Your task to perform on an android device: Open Youtube and go to "Your channel" Image 0: 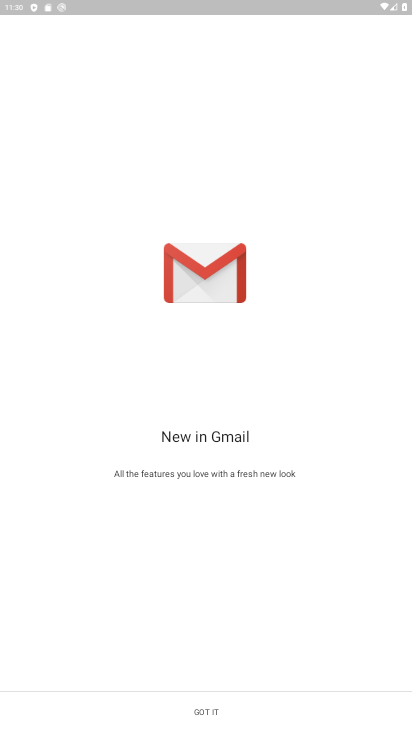
Step 0: press back button
Your task to perform on an android device: Open Youtube and go to "Your channel" Image 1: 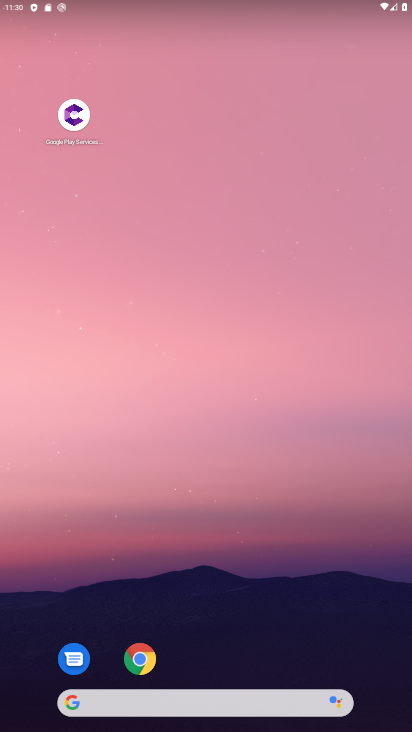
Step 1: drag from (198, 619) to (195, 169)
Your task to perform on an android device: Open Youtube and go to "Your channel" Image 2: 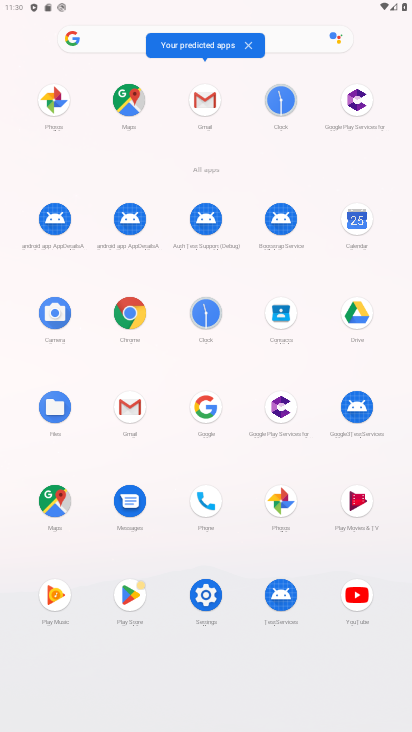
Step 2: click (363, 617)
Your task to perform on an android device: Open Youtube and go to "Your channel" Image 3: 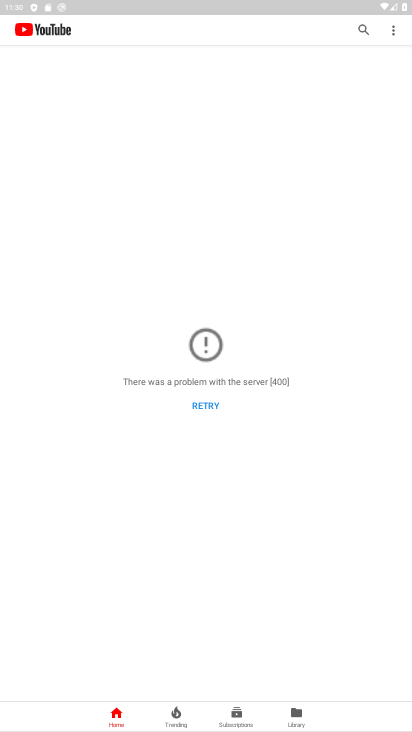
Step 3: click (294, 714)
Your task to perform on an android device: Open Youtube and go to "Your channel" Image 4: 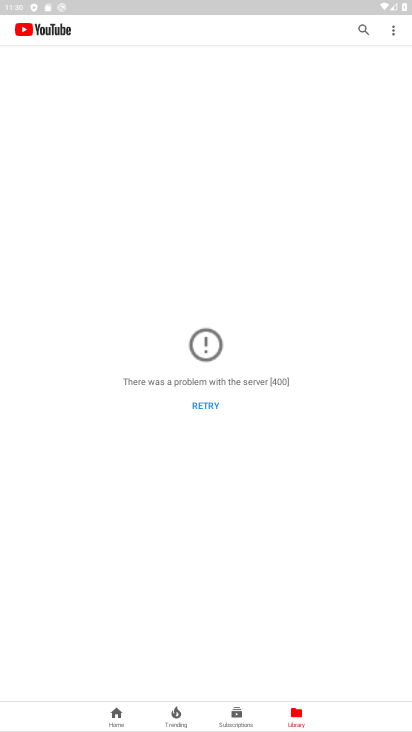
Step 4: task complete